Your task to perform on an android device: Open Google Chrome Image 0: 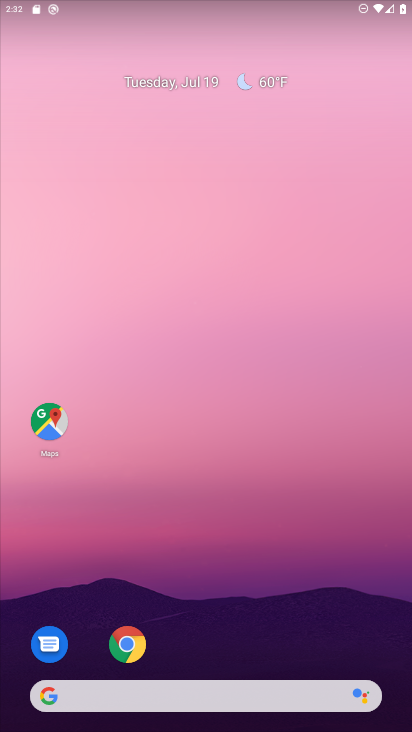
Step 0: click (116, 640)
Your task to perform on an android device: Open Google Chrome Image 1: 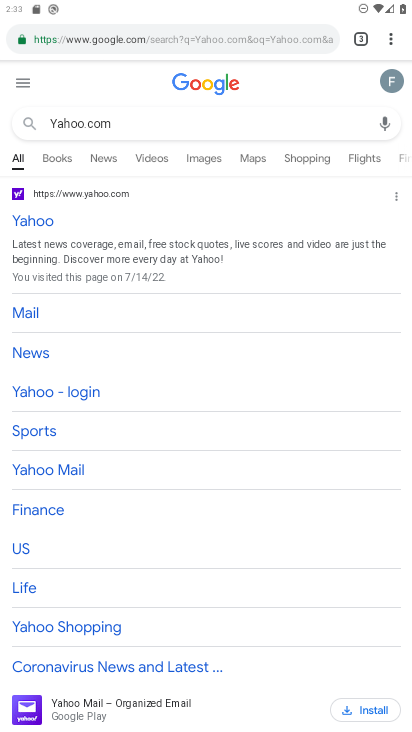
Step 1: click (176, 36)
Your task to perform on an android device: Open Google Chrome Image 2: 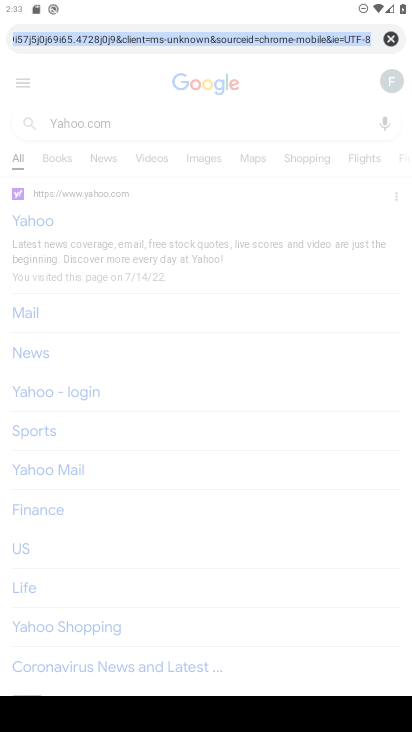
Step 2: click (393, 38)
Your task to perform on an android device: Open Google Chrome Image 3: 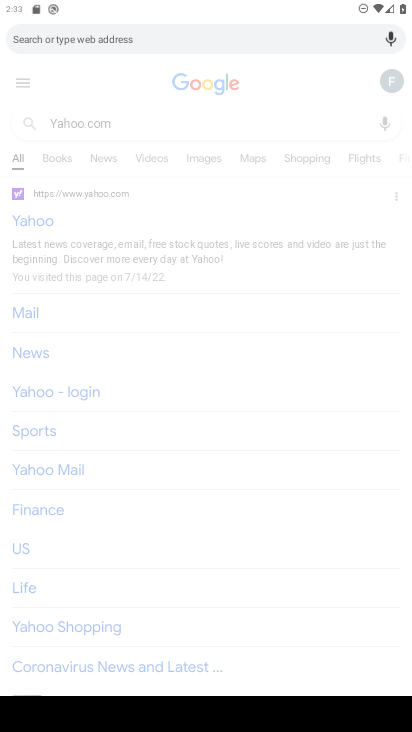
Step 3: type "Google Chrome"
Your task to perform on an android device: Open Google Chrome Image 4: 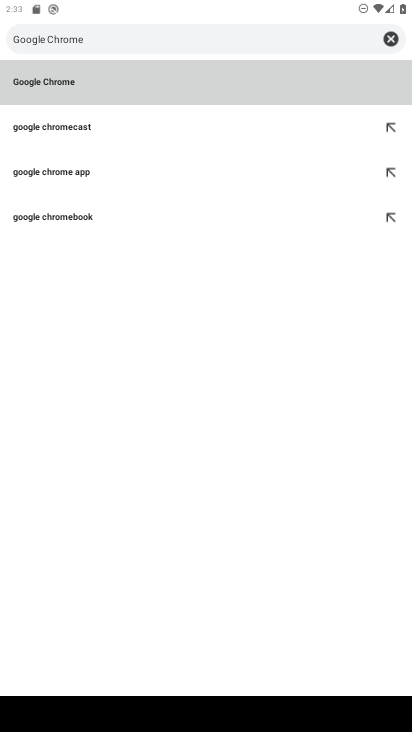
Step 4: click (63, 82)
Your task to perform on an android device: Open Google Chrome Image 5: 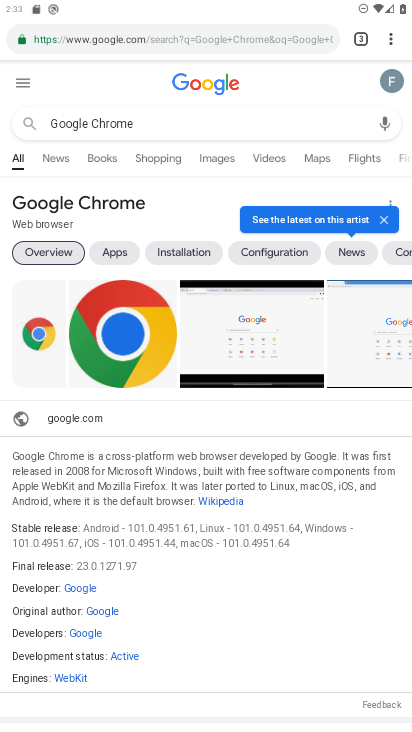
Step 5: task complete